Your task to perform on an android device: turn on airplane mode Image 0: 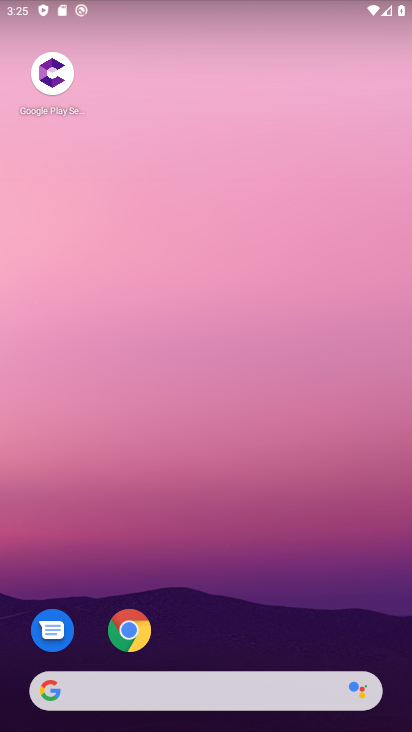
Step 0: drag from (223, 634) to (286, 214)
Your task to perform on an android device: turn on airplane mode Image 1: 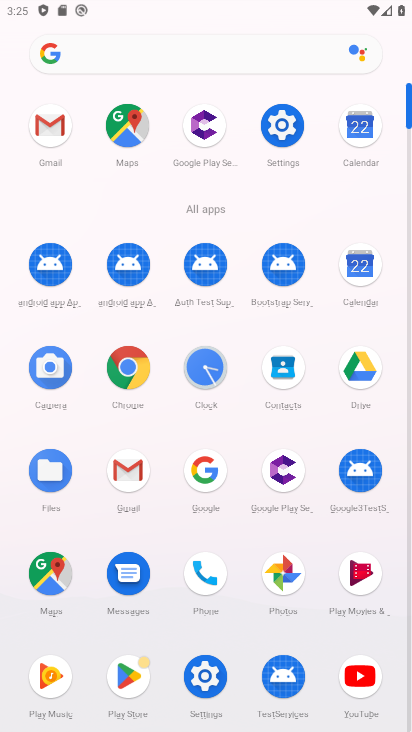
Step 1: click (207, 681)
Your task to perform on an android device: turn on airplane mode Image 2: 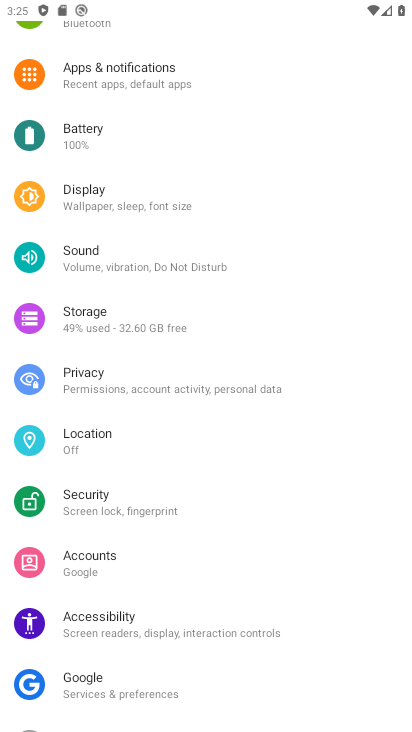
Step 2: drag from (163, 66) to (156, 584)
Your task to perform on an android device: turn on airplane mode Image 3: 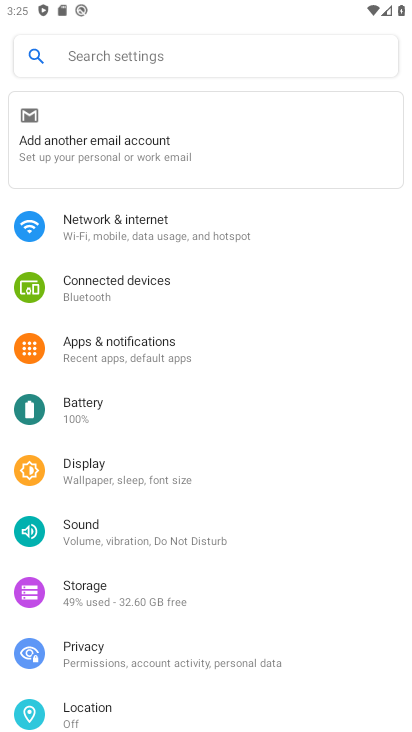
Step 3: click (167, 239)
Your task to perform on an android device: turn on airplane mode Image 4: 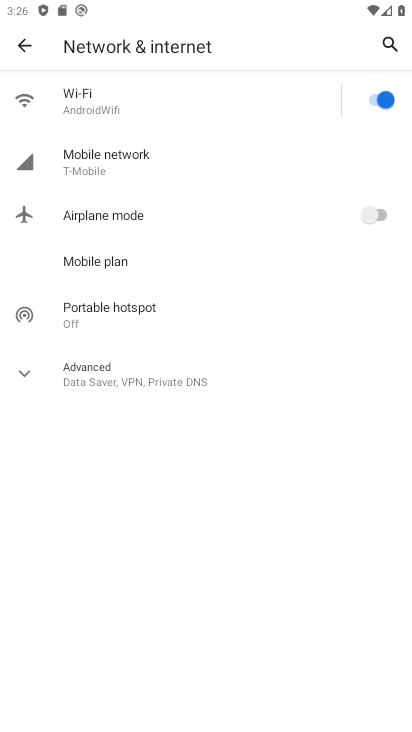
Step 4: click (378, 215)
Your task to perform on an android device: turn on airplane mode Image 5: 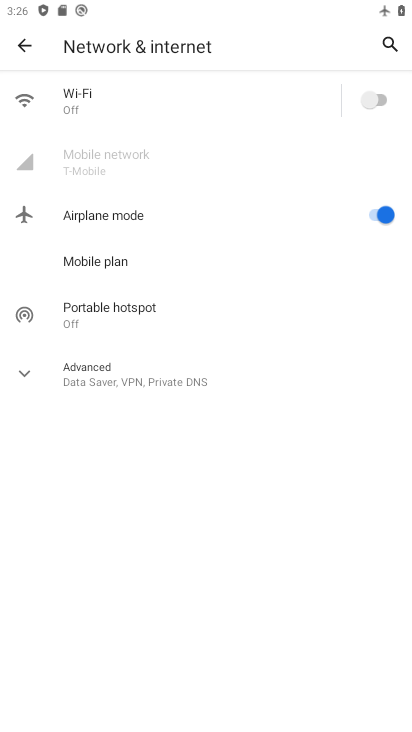
Step 5: task complete